Your task to perform on an android device: Check the news Image 0: 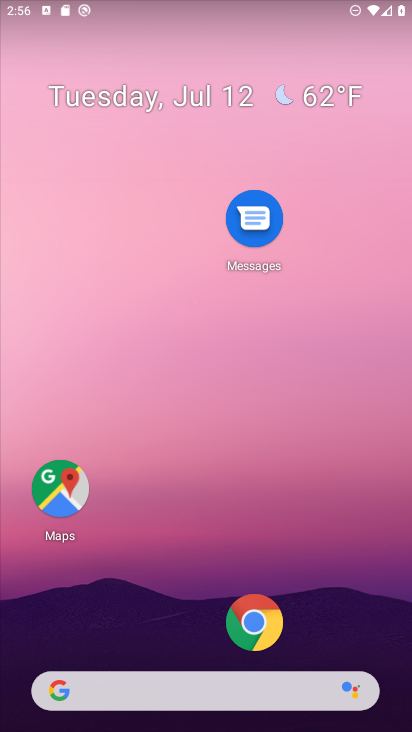
Step 0: drag from (3, 318) to (407, 365)
Your task to perform on an android device: Check the news Image 1: 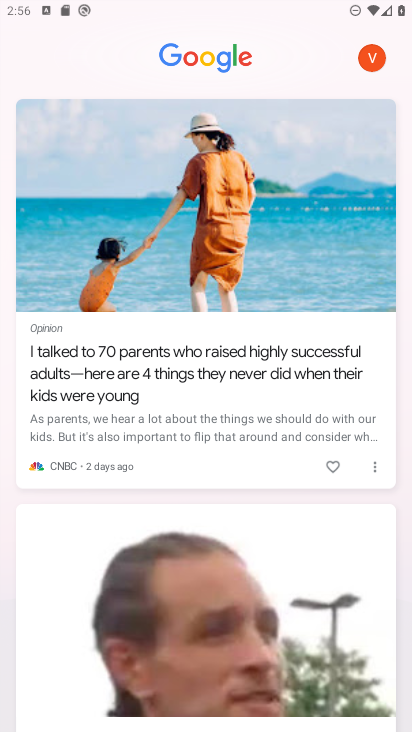
Step 1: task complete